Your task to perform on an android device: Open Yahoo.com Image 0: 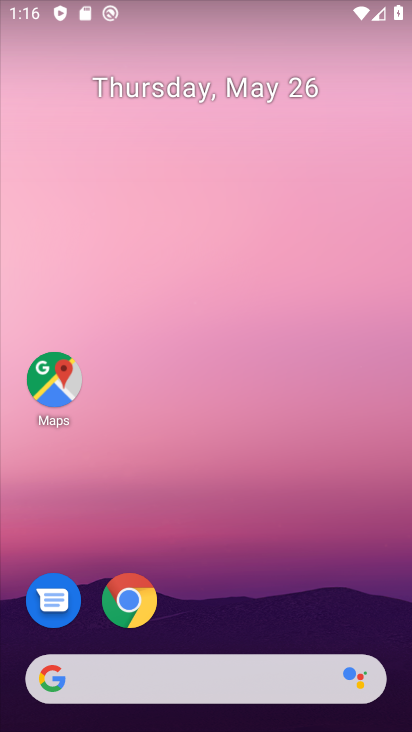
Step 0: click (128, 597)
Your task to perform on an android device: Open Yahoo.com Image 1: 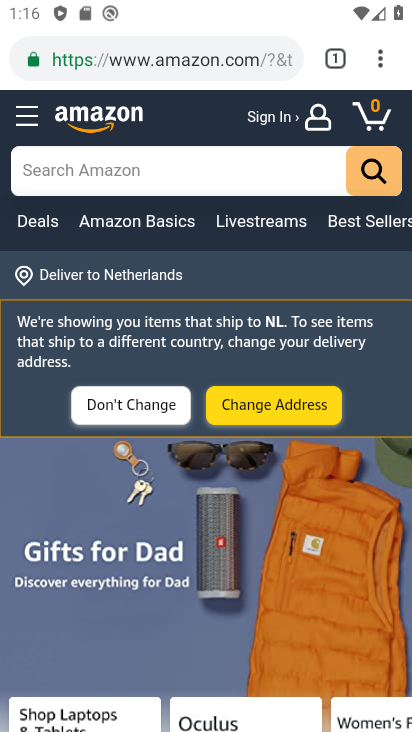
Step 1: click (252, 59)
Your task to perform on an android device: Open Yahoo.com Image 2: 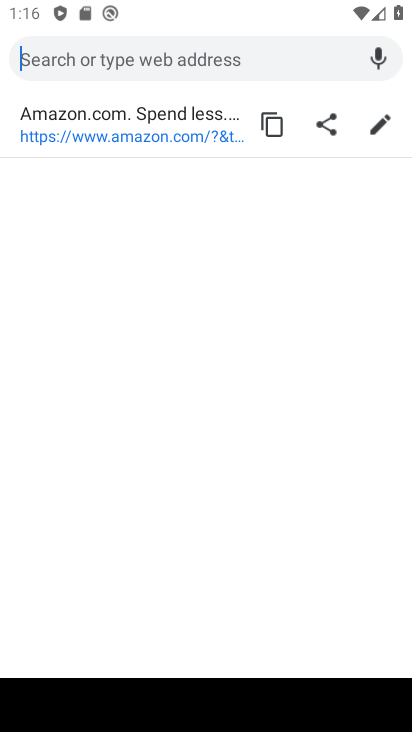
Step 2: type "Yahoo.com"
Your task to perform on an android device: Open Yahoo.com Image 3: 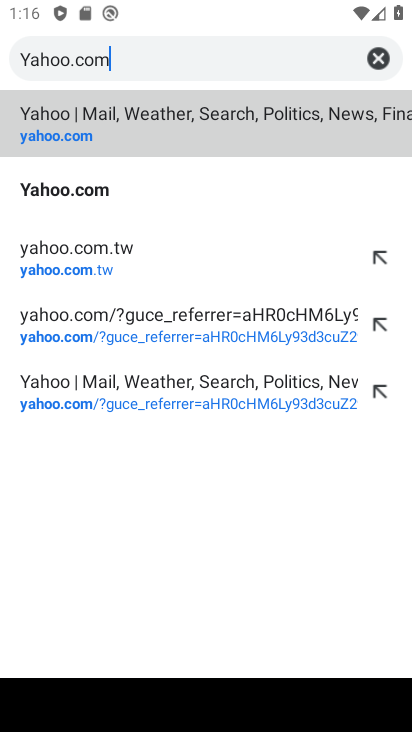
Step 3: click (54, 185)
Your task to perform on an android device: Open Yahoo.com Image 4: 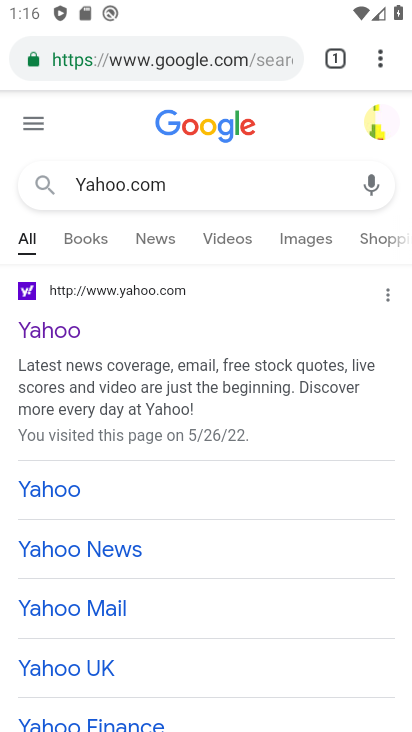
Step 4: click (70, 329)
Your task to perform on an android device: Open Yahoo.com Image 5: 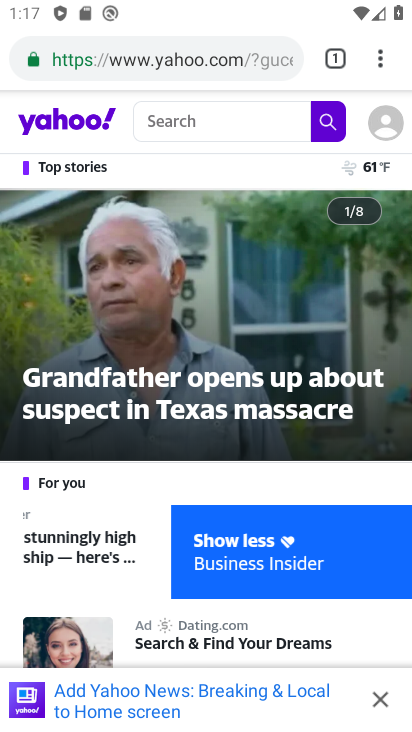
Step 5: task complete